Your task to perform on an android device: Search for Mexican restaurants on Maps Image 0: 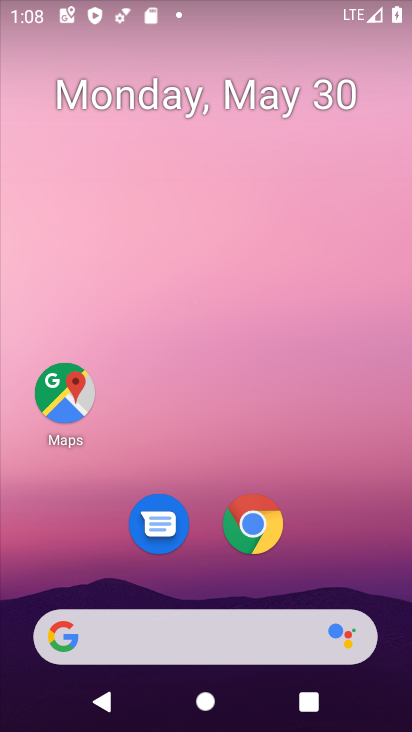
Step 0: click (66, 400)
Your task to perform on an android device: Search for Mexican restaurants on Maps Image 1: 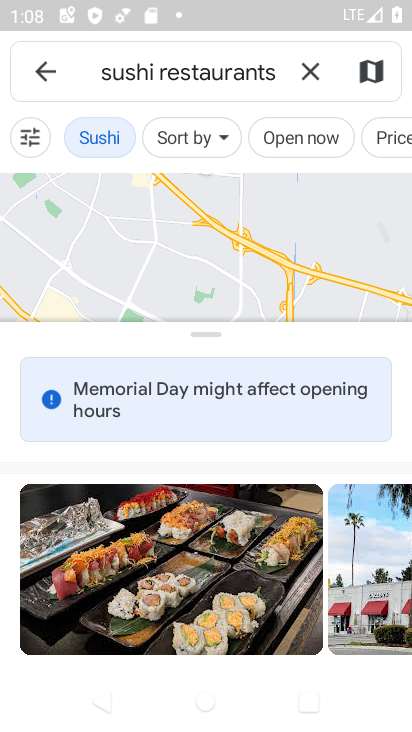
Step 1: click (304, 62)
Your task to perform on an android device: Search for Mexican restaurants on Maps Image 2: 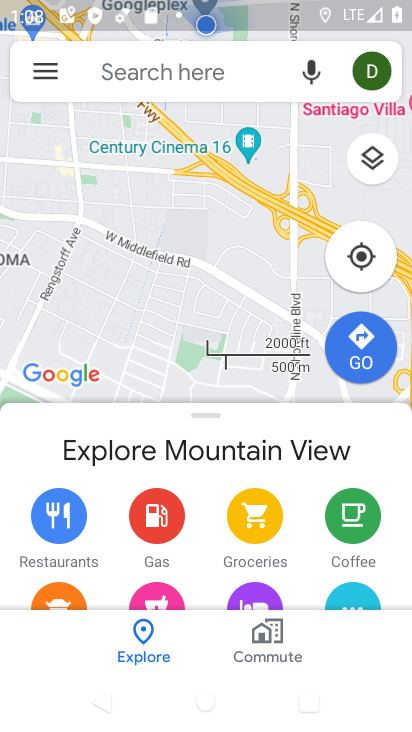
Step 2: click (181, 70)
Your task to perform on an android device: Search for Mexican restaurants on Maps Image 3: 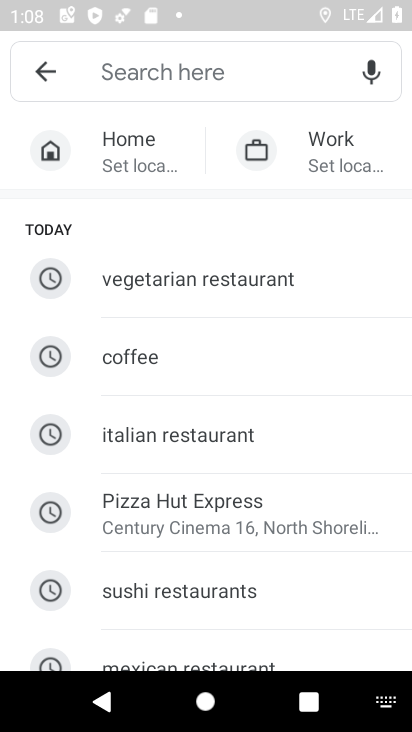
Step 3: drag from (194, 509) to (200, 151)
Your task to perform on an android device: Search for Mexican restaurants on Maps Image 4: 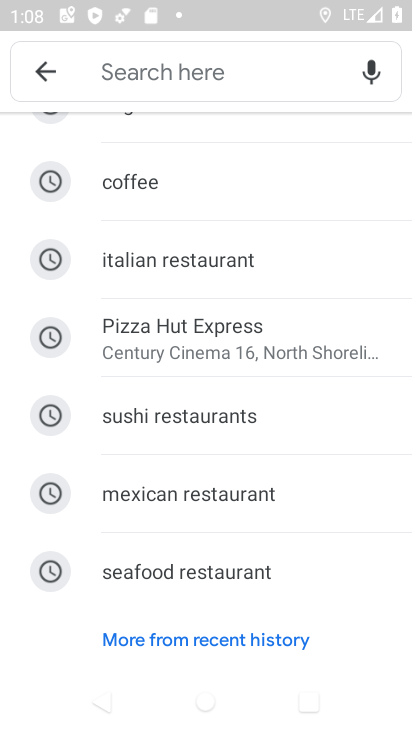
Step 4: click (205, 498)
Your task to perform on an android device: Search for Mexican restaurants on Maps Image 5: 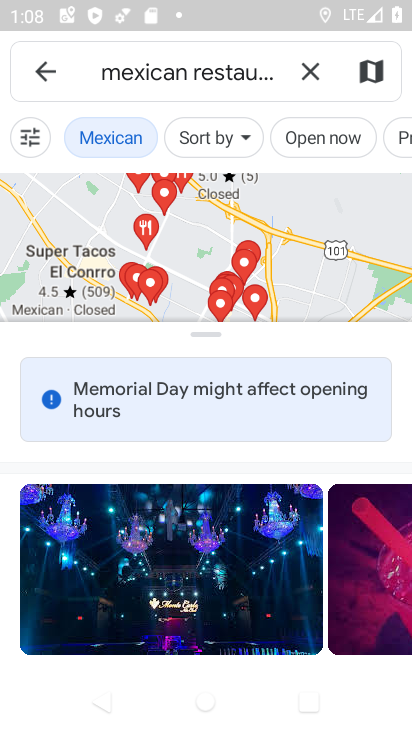
Step 5: task complete